Your task to perform on an android device: refresh tabs in the chrome app Image 0: 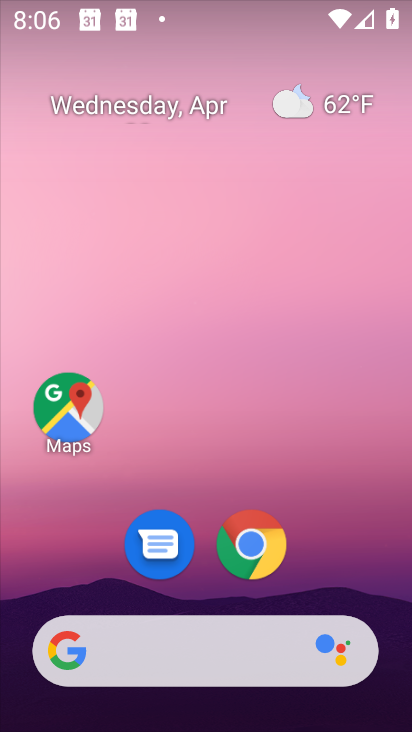
Step 0: click (251, 538)
Your task to perform on an android device: refresh tabs in the chrome app Image 1: 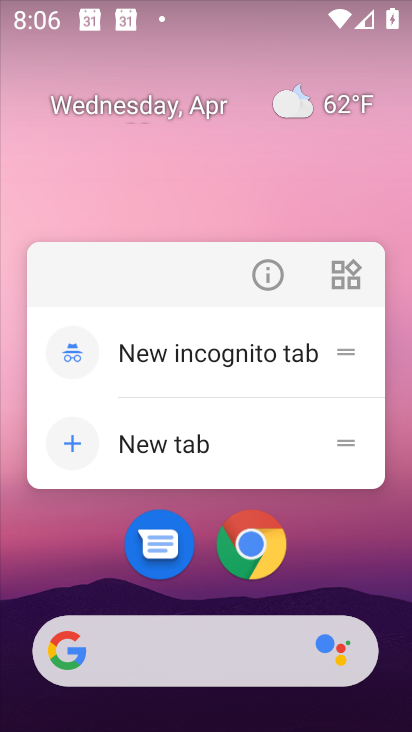
Step 1: click (247, 553)
Your task to perform on an android device: refresh tabs in the chrome app Image 2: 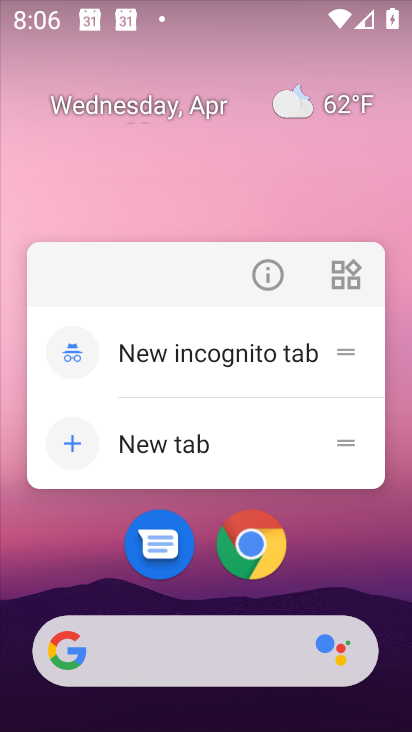
Step 2: click (249, 530)
Your task to perform on an android device: refresh tabs in the chrome app Image 3: 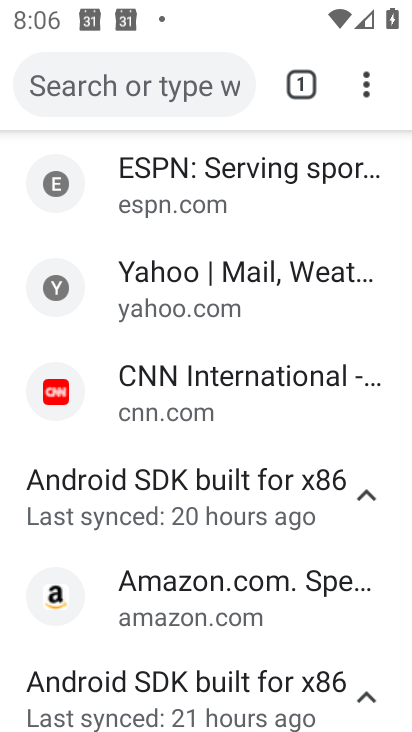
Step 3: click (363, 83)
Your task to perform on an android device: refresh tabs in the chrome app Image 4: 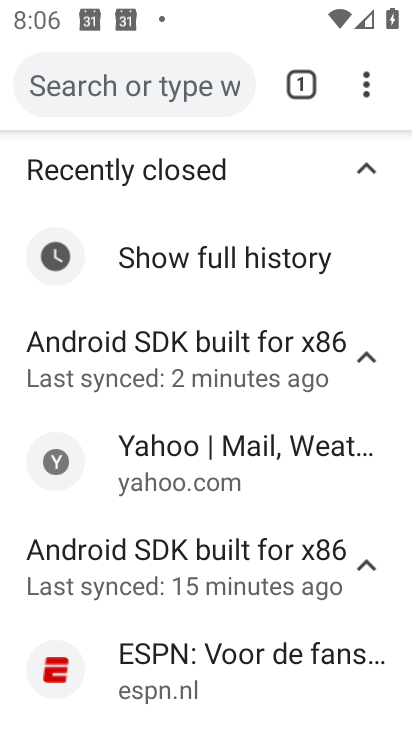
Step 4: click (363, 89)
Your task to perform on an android device: refresh tabs in the chrome app Image 5: 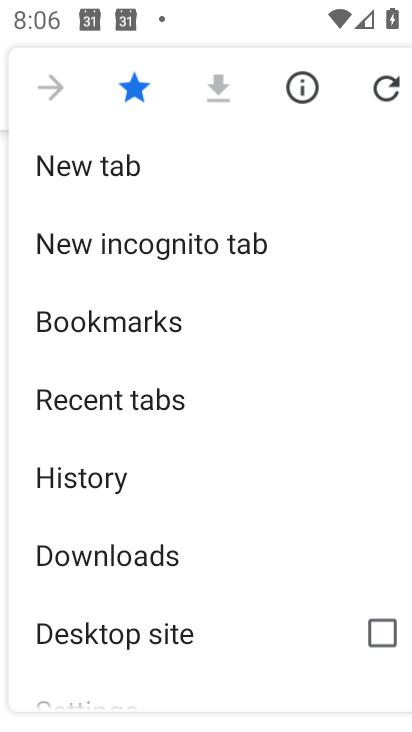
Step 5: click (386, 91)
Your task to perform on an android device: refresh tabs in the chrome app Image 6: 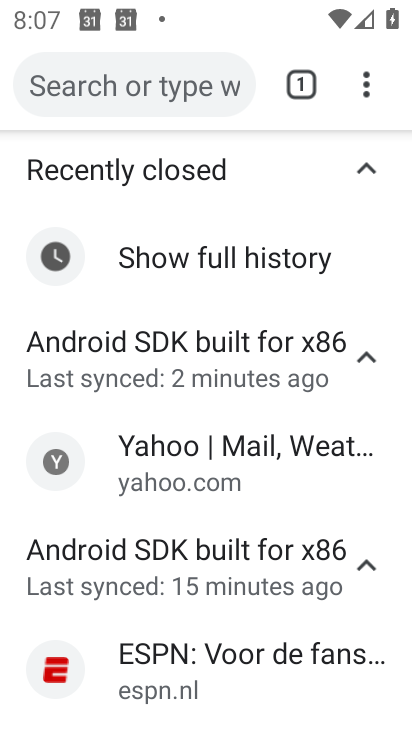
Step 6: click (300, 72)
Your task to perform on an android device: refresh tabs in the chrome app Image 7: 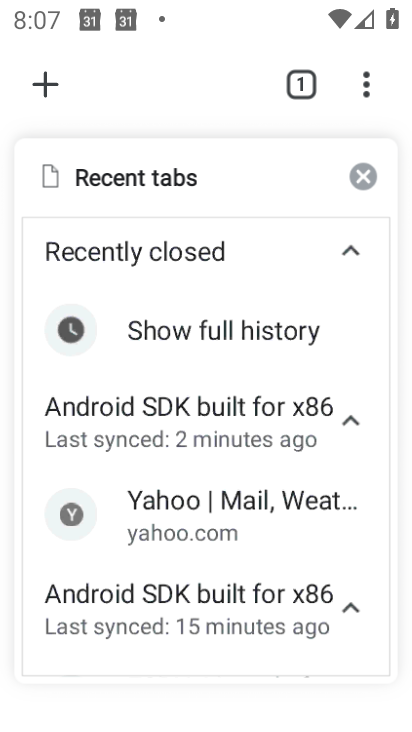
Step 7: click (37, 74)
Your task to perform on an android device: refresh tabs in the chrome app Image 8: 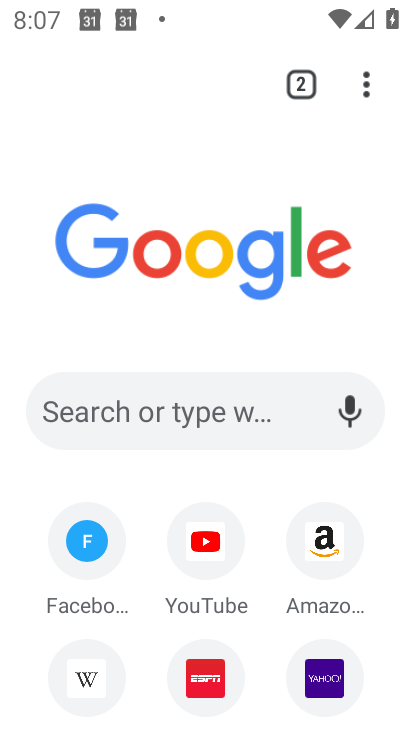
Step 8: click (364, 81)
Your task to perform on an android device: refresh tabs in the chrome app Image 9: 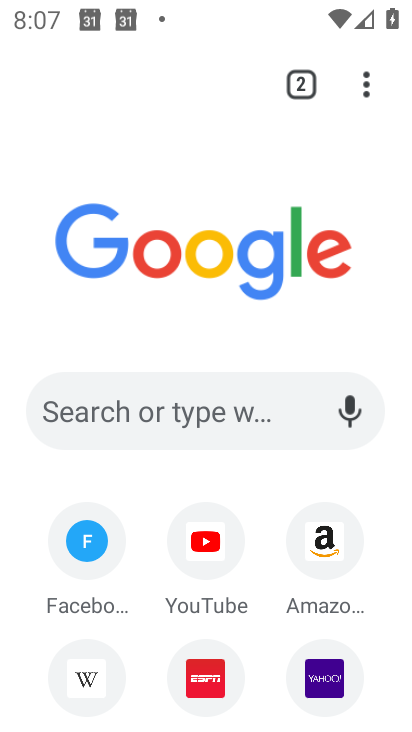
Step 9: click (366, 83)
Your task to perform on an android device: refresh tabs in the chrome app Image 10: 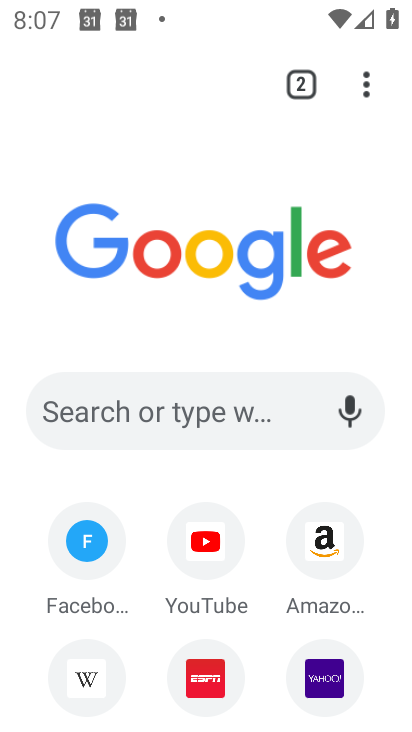
Step 10: click (366, 83)
Your task to perform on an android device: refresh tabs in the chrome app Image 11: 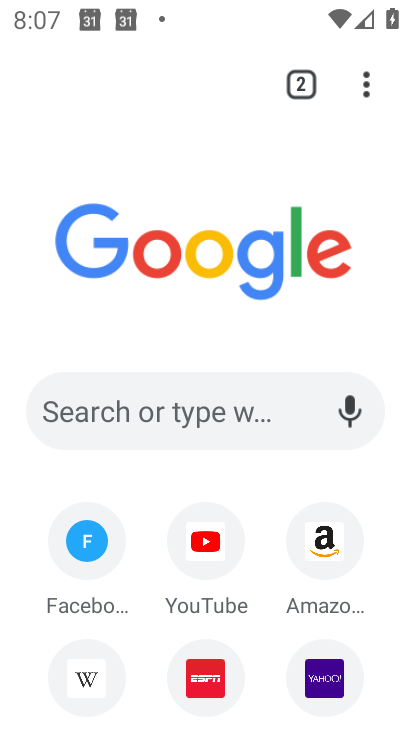
Step 11: task complete